Your task to perform on an android device: move a message to another label in the gmail app Image 0: 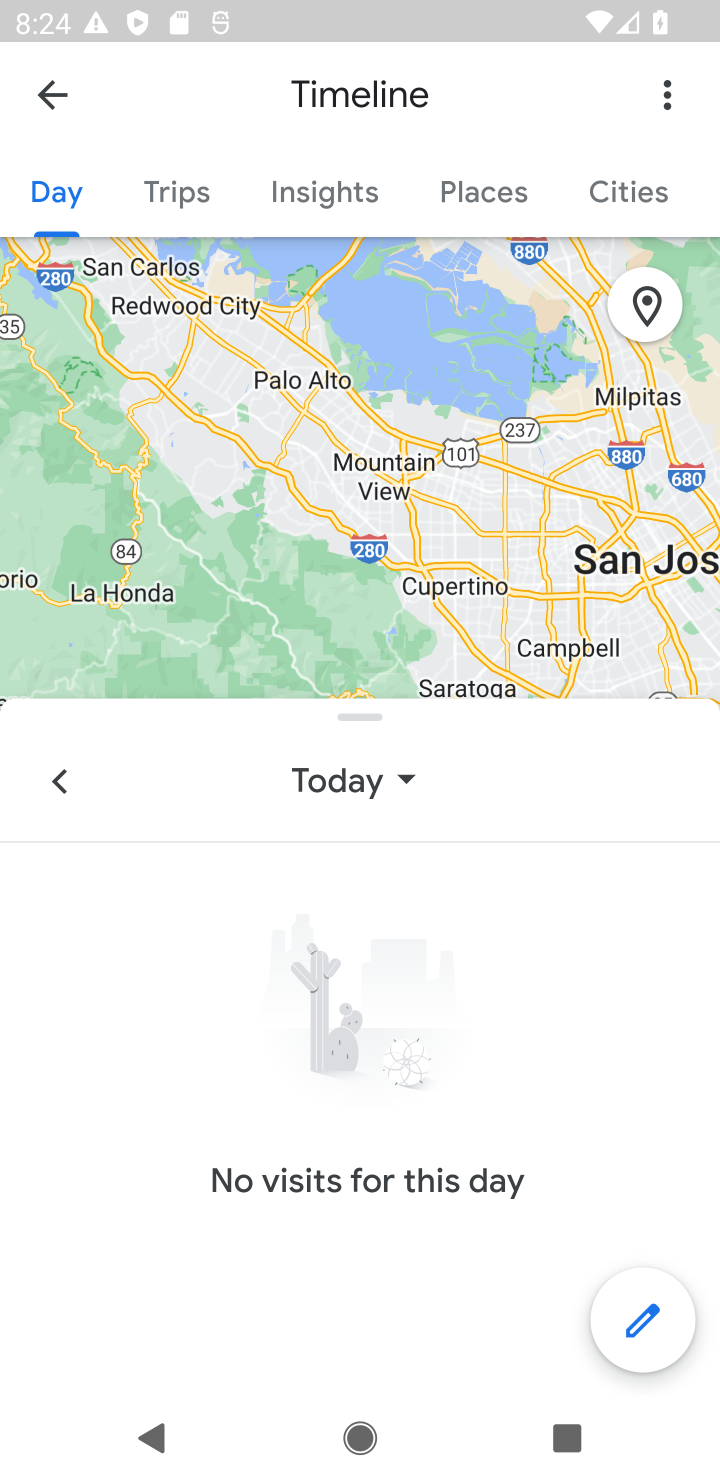
Step 0: press home button
Your task to perform on an android device: move a message to another label in the gmail app Image 1: 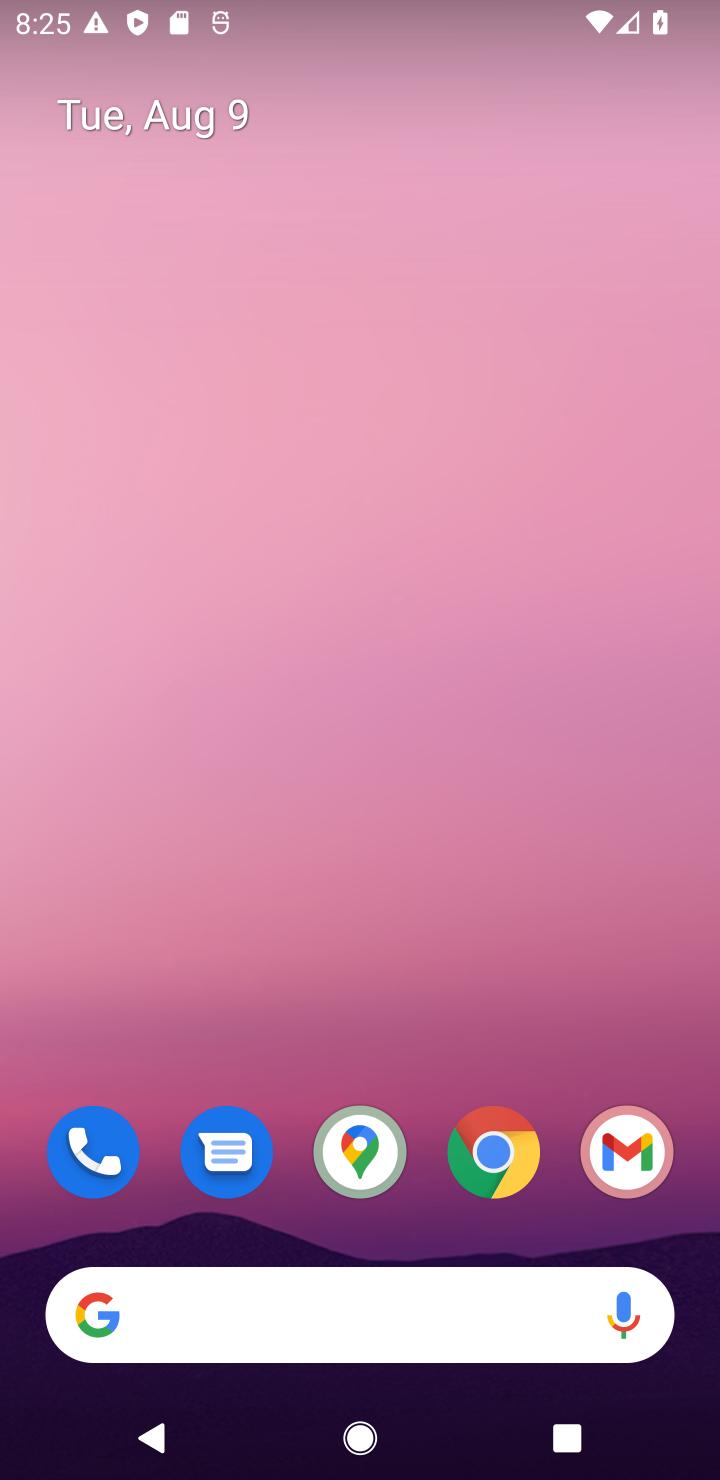
Step 1: click (669, 1191)
Your task to perform on an android device: move a message to another label in the gmail app Image 2: 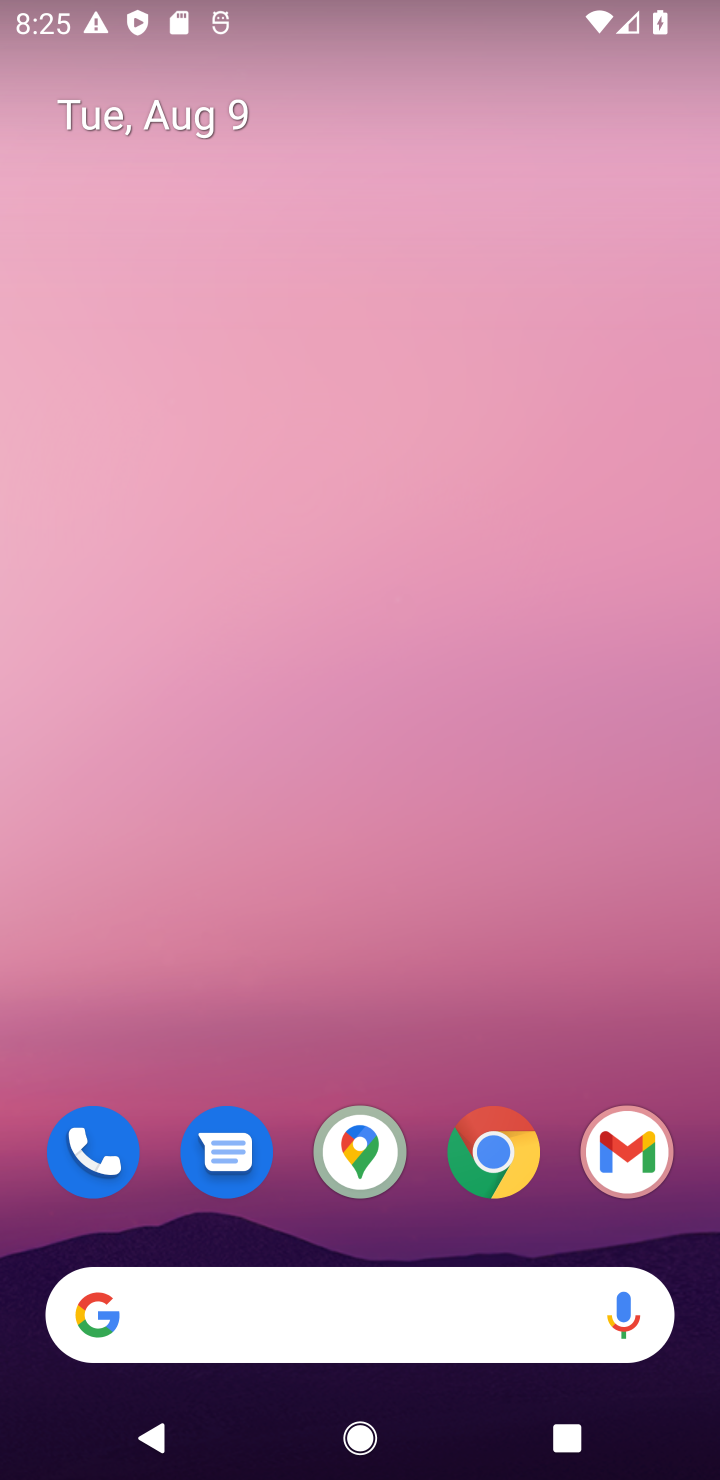
Step 2: click (669, 1191)
Your task to perform on an android device: move a message to another label in the gmail app Image 3: 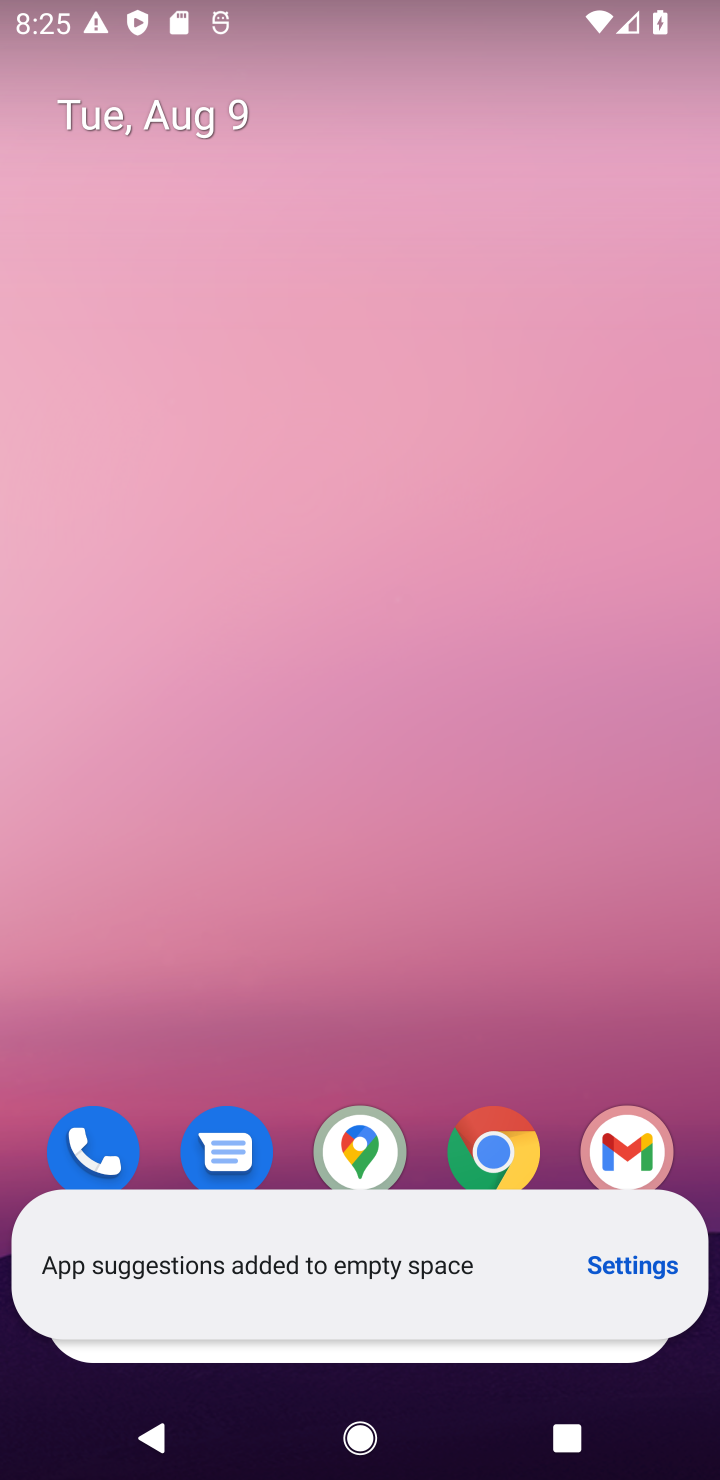
Step 3: click (669, 1134)
Your task to perform on an android device: move a message to another label in the gmail app Image 4: 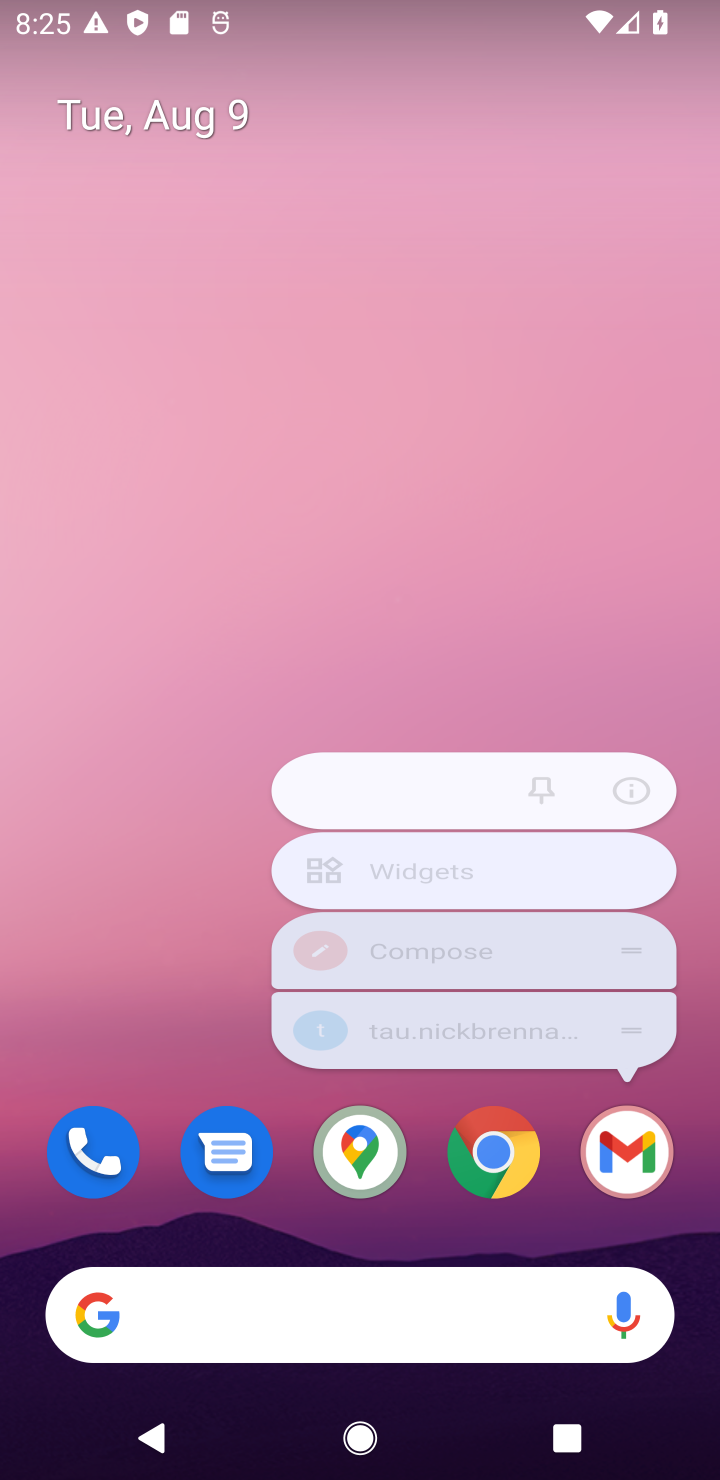
Step 4: click (669, 1134)
Your task to perform on an android device: move a message to another label in the gmail app Image 5: 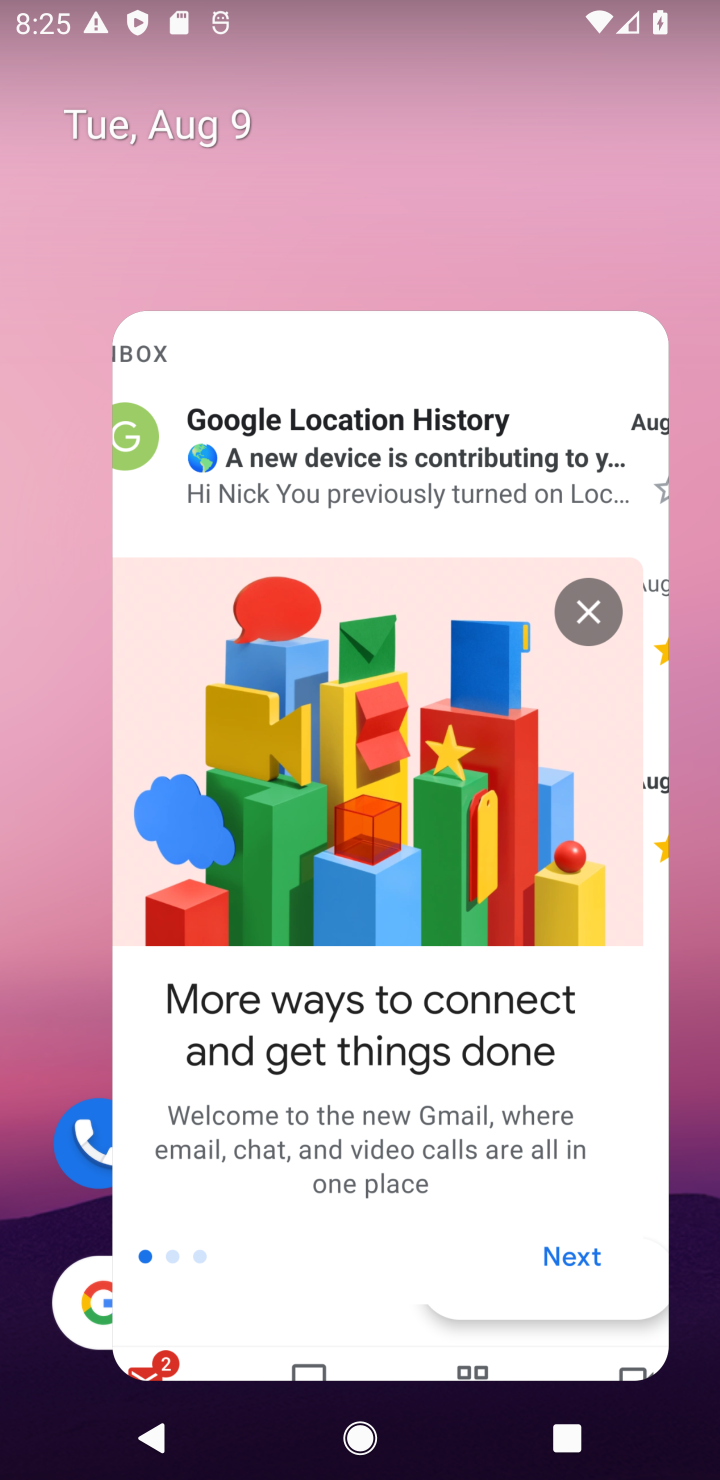
Step 5: click (669, 1134)
Your task to perform on an android device: move a message to another label in the gmail app Image 6: 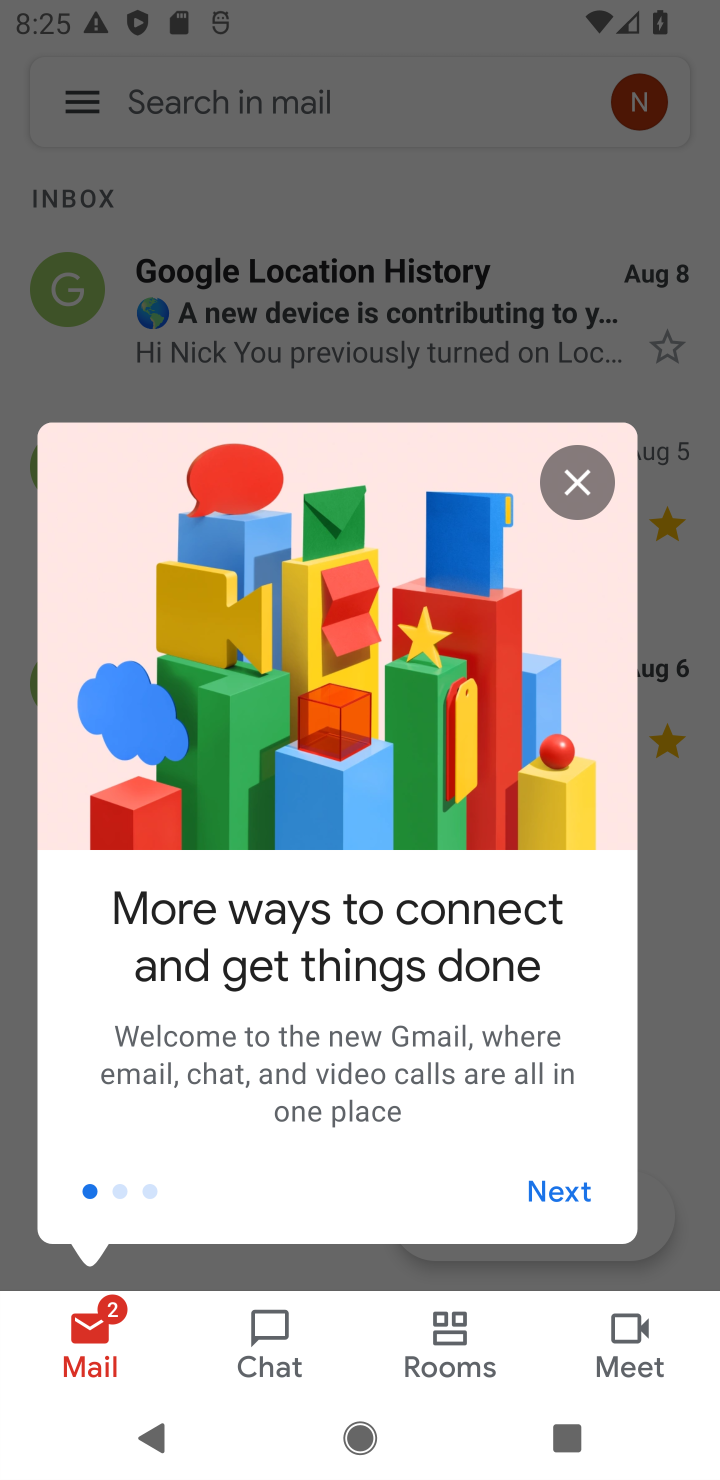
Step 6: click (669, 1134)
Your task to perform on an android device: move a message to another label in the gmail app Image 7: 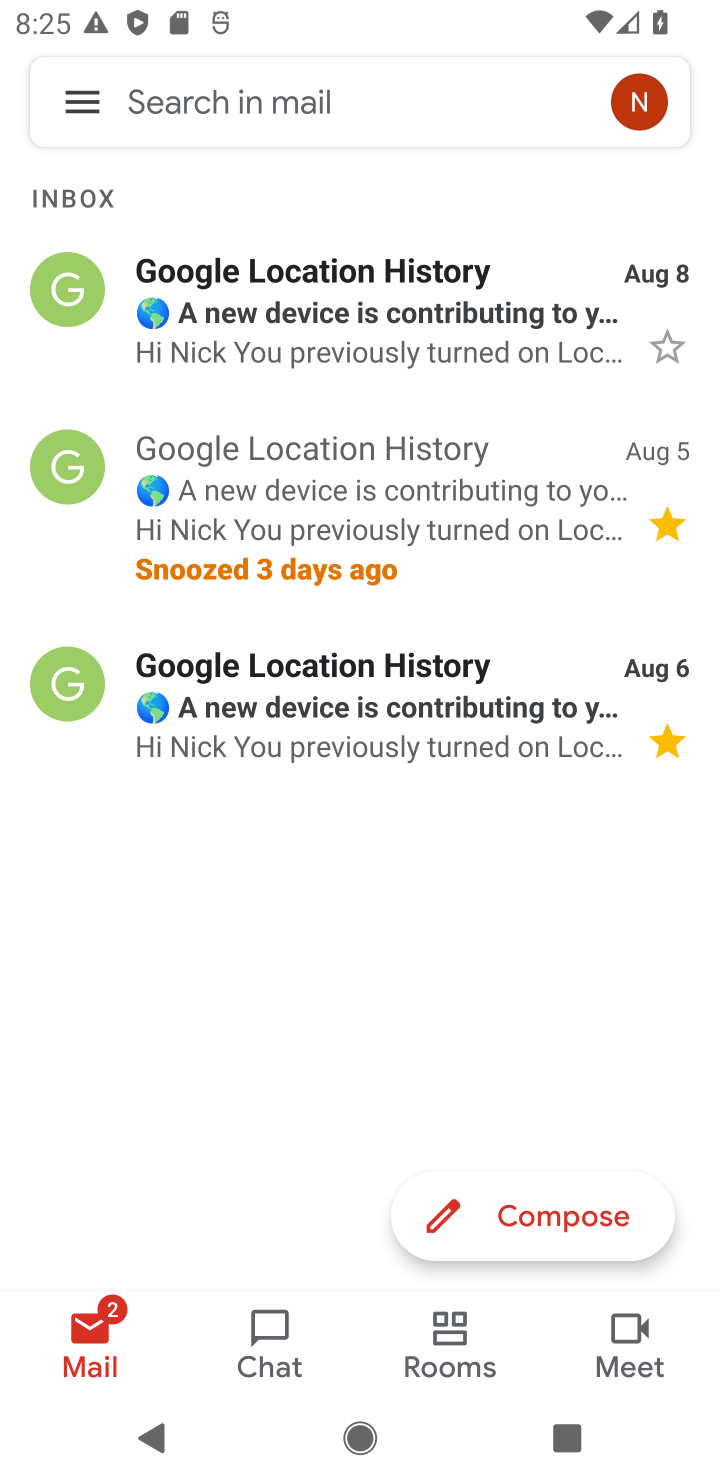
Step 7: click (90, 694)
Your task to perform on an android device: move a message to another label in the gmail app Image 8: 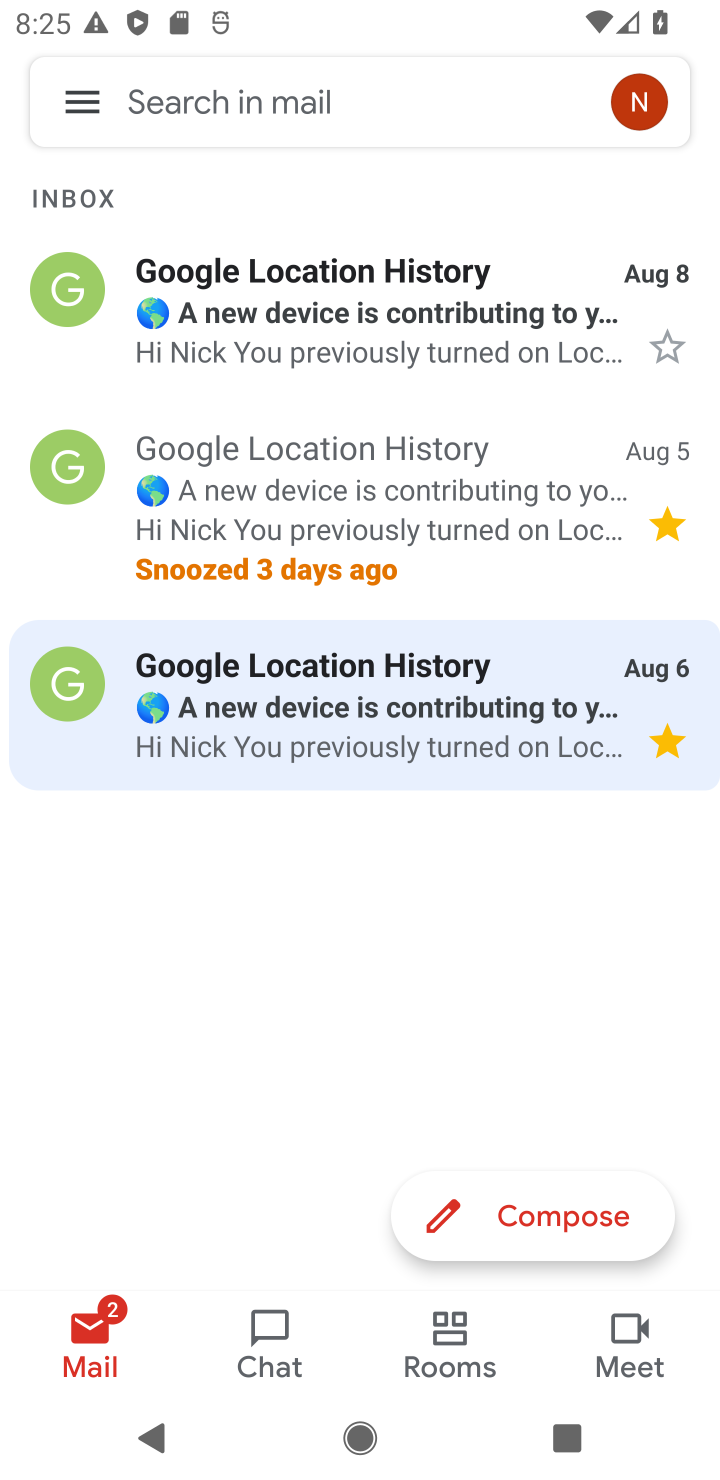
Step 8: click (90, 694)
Your task to perform on an android device: move a message to another label in the gmail app Image 9: 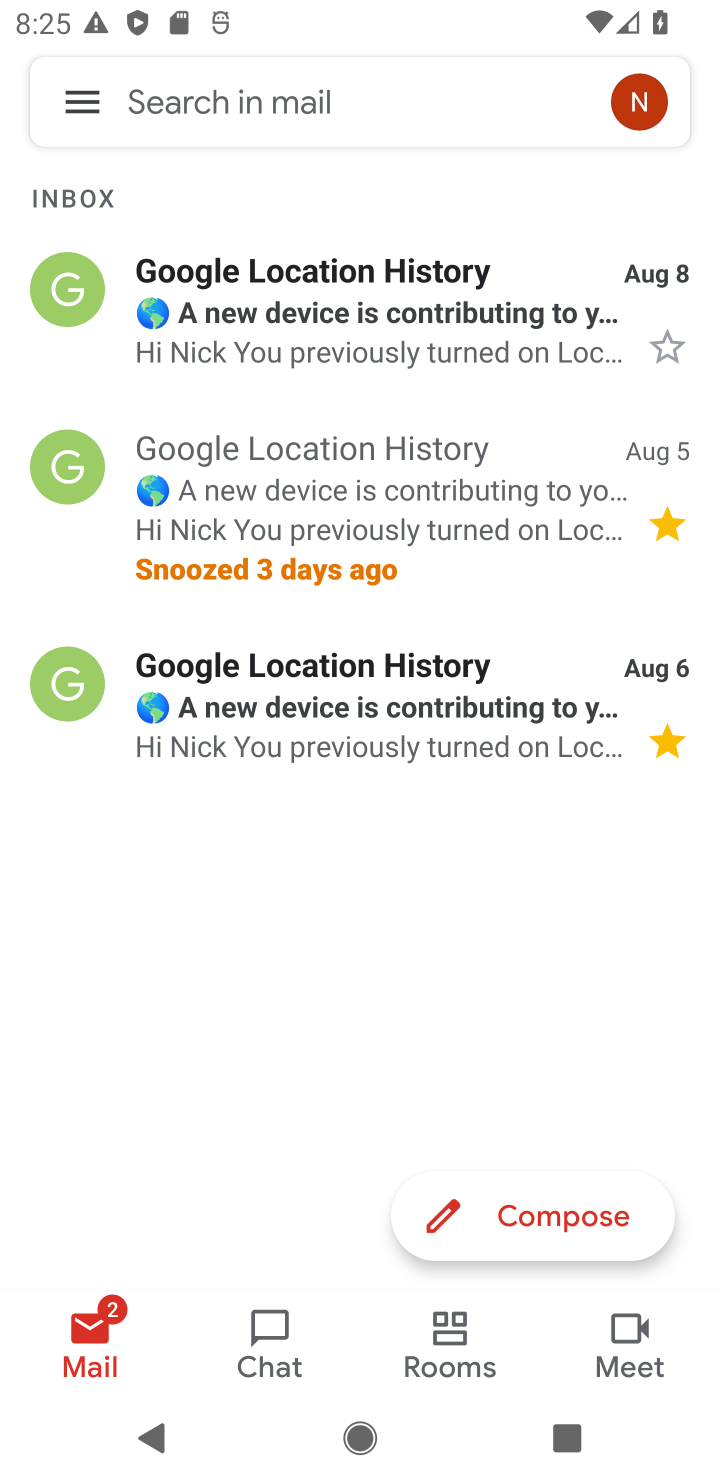
Step 9: click (58, 471)
Your task to perform on an android device: move a message to another label in the gmail app Image 10: 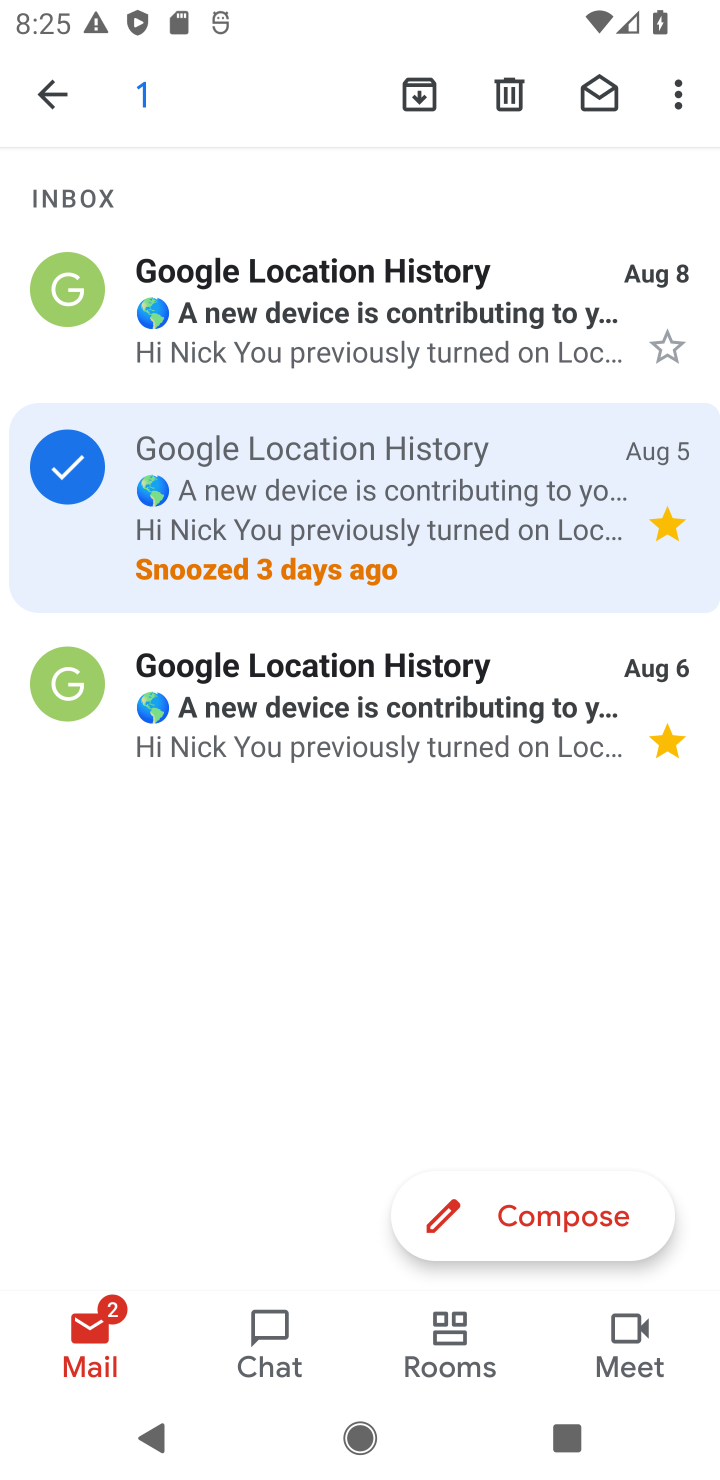
Step 10: click (698, 89)
Your task to perform on an android device: move a message to another label in the gmail app Image 11: 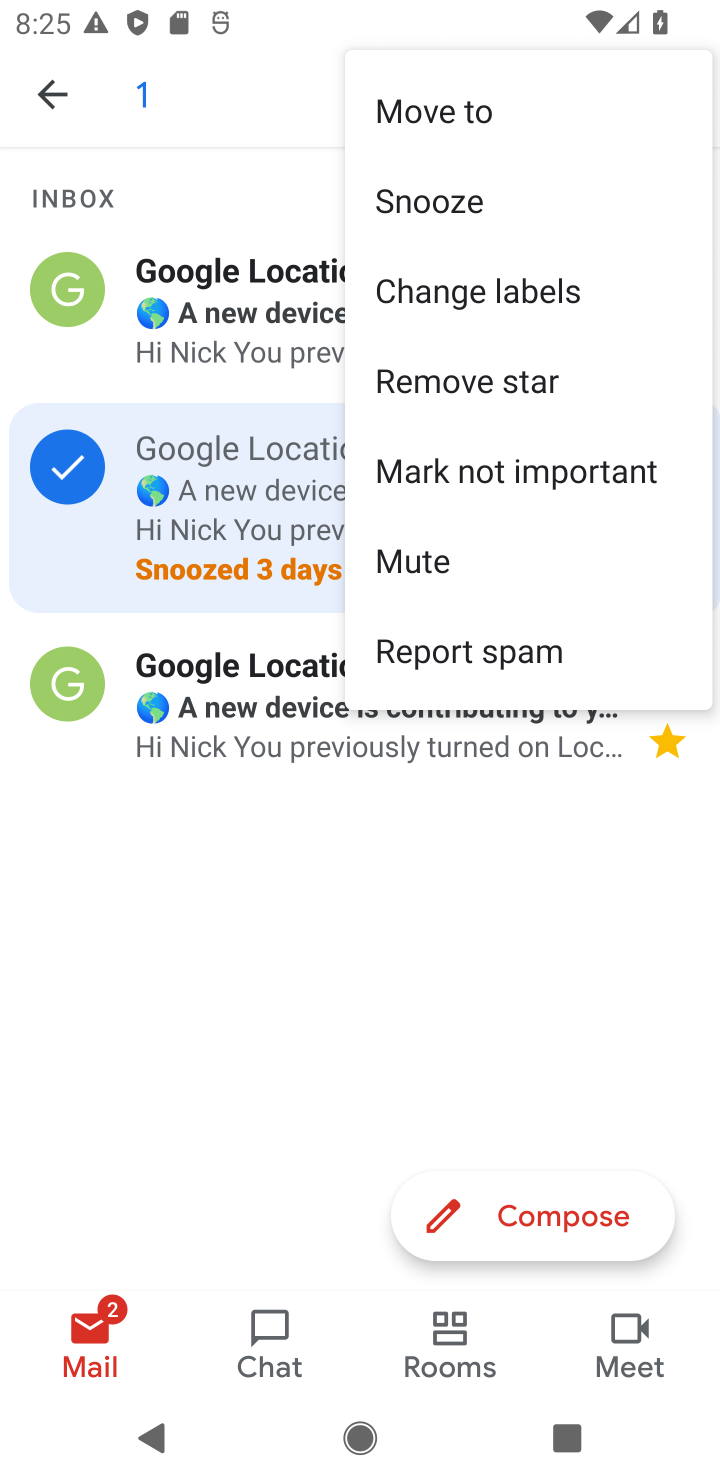
Step 11: click (698, 89)
Your task to perform on an android device: move a message to another label in the gmail app Image 12: 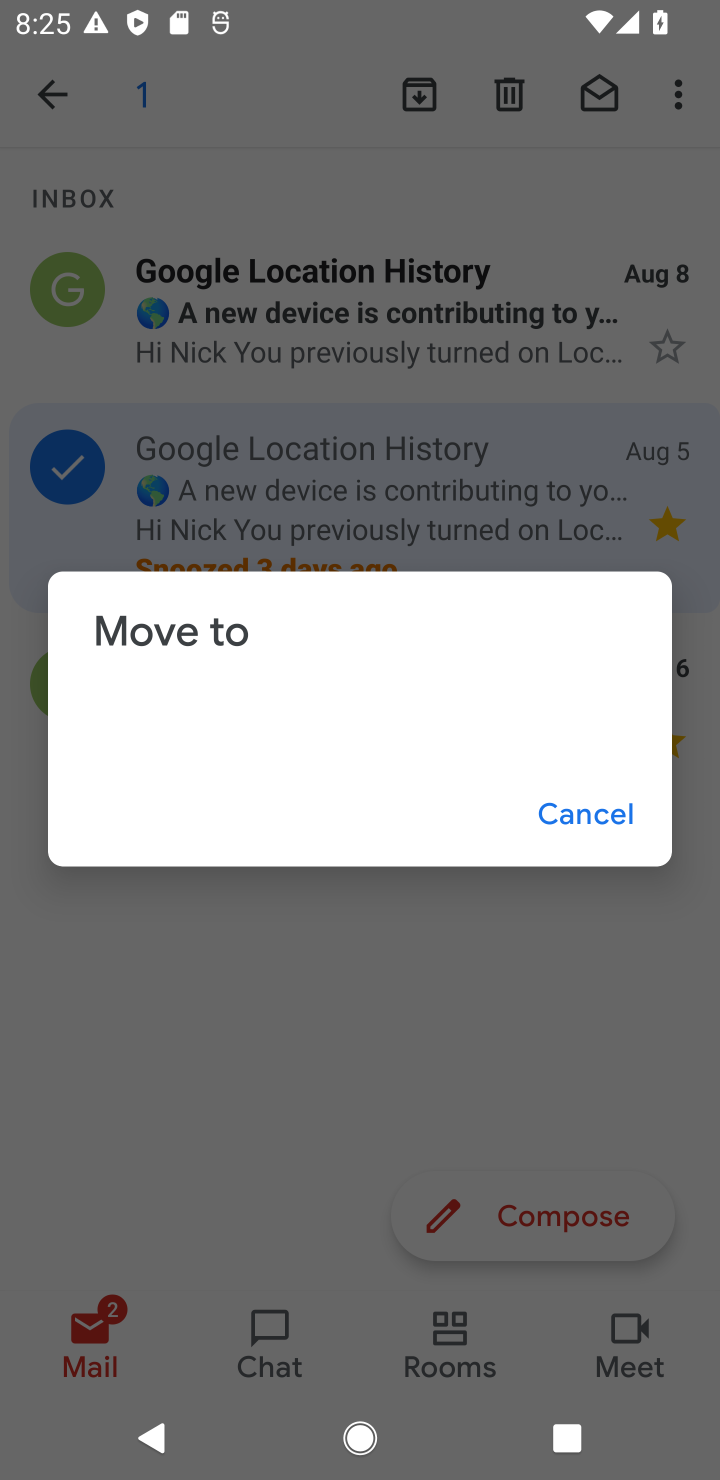
Step 12: click (514, 850)
Your task to perform on an android device: move a message to another label in the gmail app Image 13: 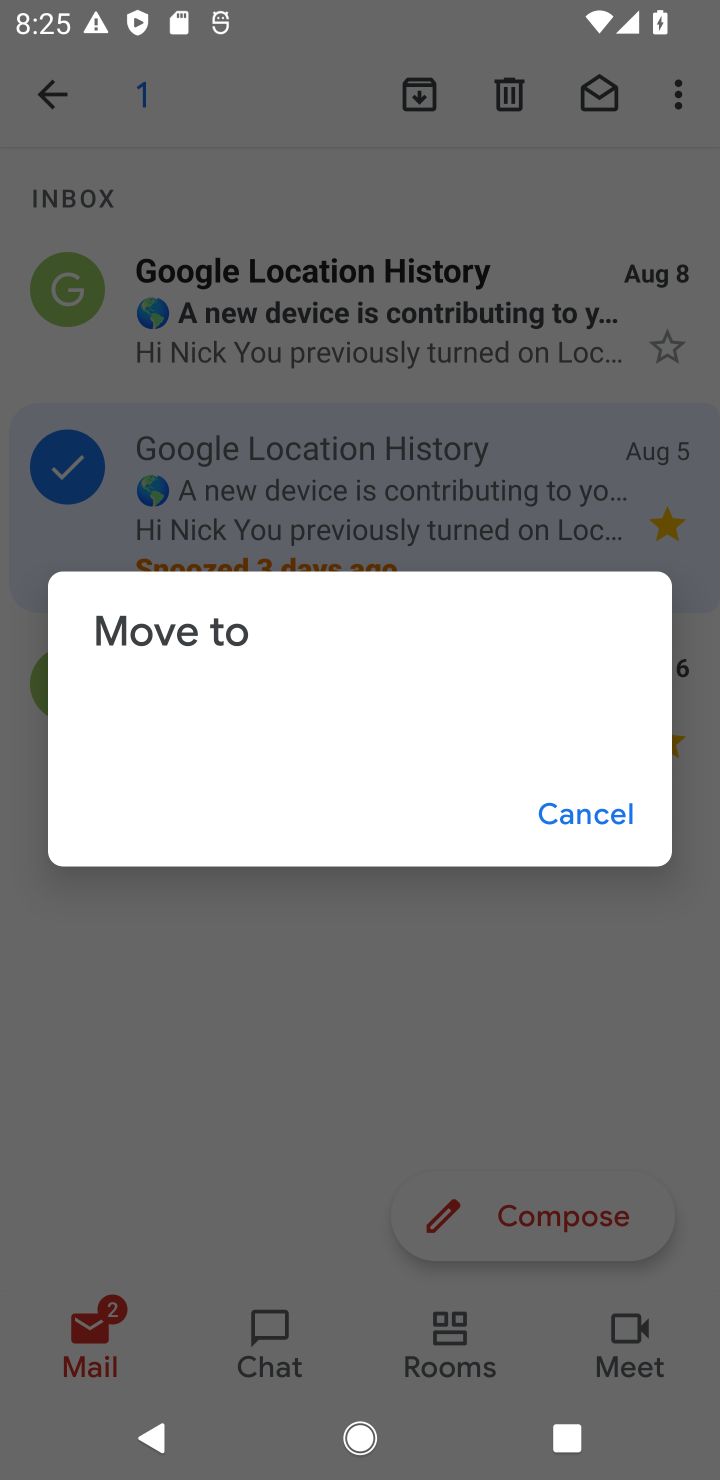
Step 13: click (514, 850)
Your task to perform on an android device: move a message to another label in the gmail app Image 14: 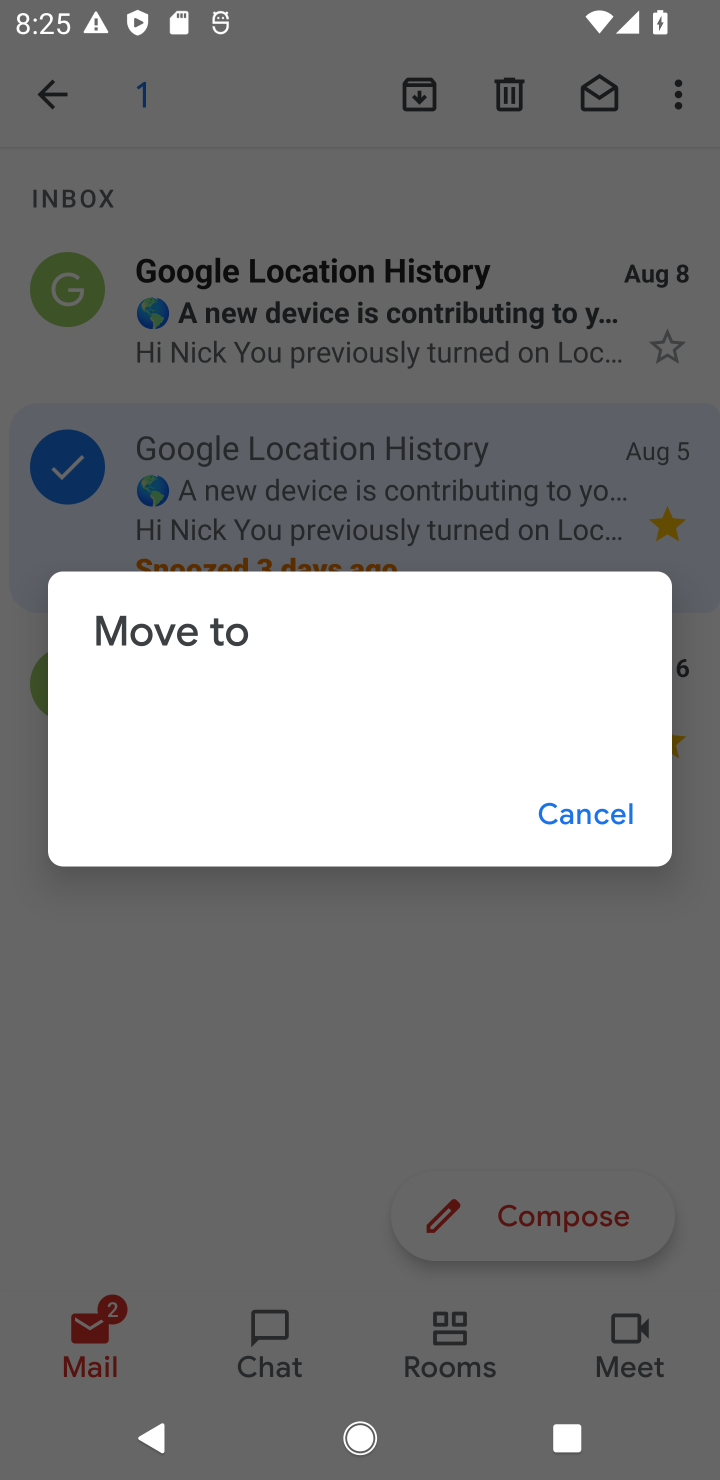
Step 14: click (514, 850)
Your task to perform on an android device: move a message to another label in the gmail app Image 15: 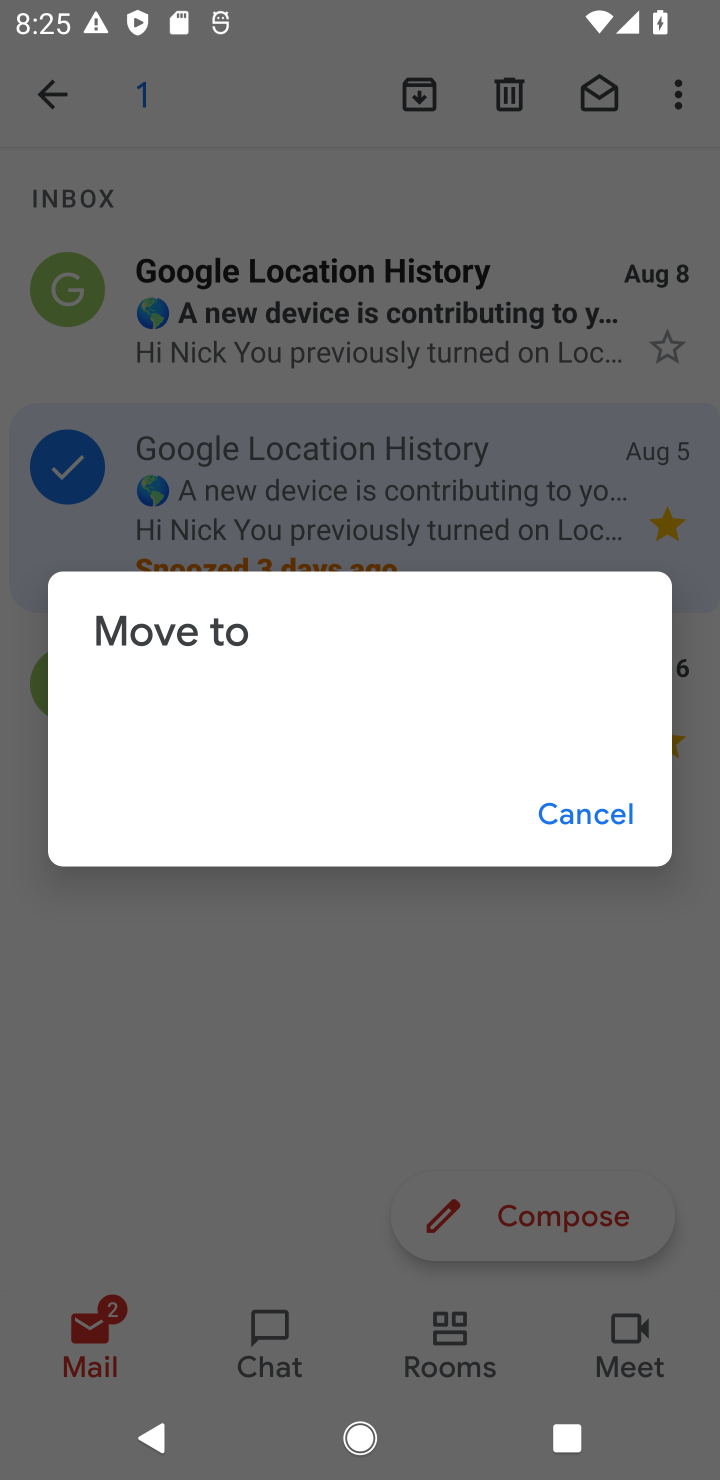
Step 15: click (514, 850)
Your task to perform on an android device: move a message to another label in the gmail app Image 16: 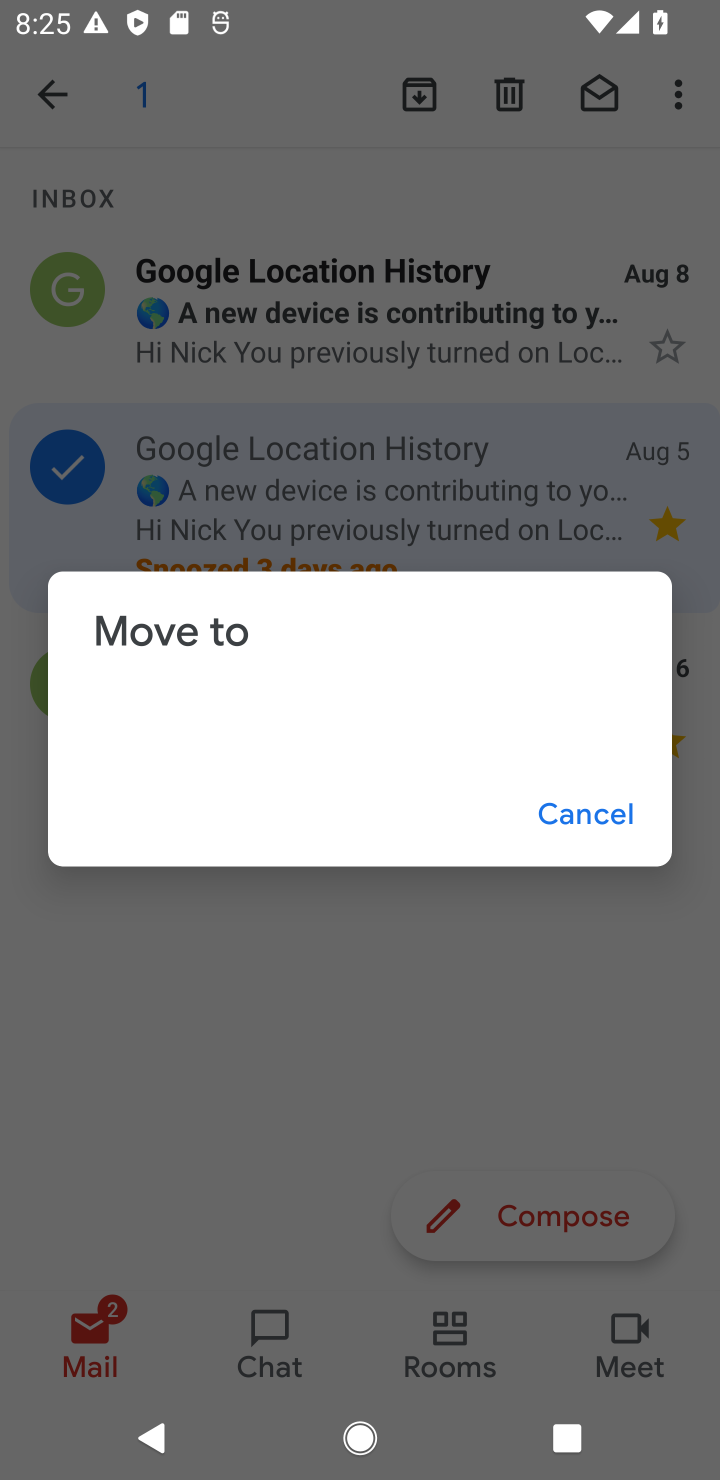
Step 16: click (514, 850)
Your task to perform on an android device: move a message to another label in the gmail app Image 17: 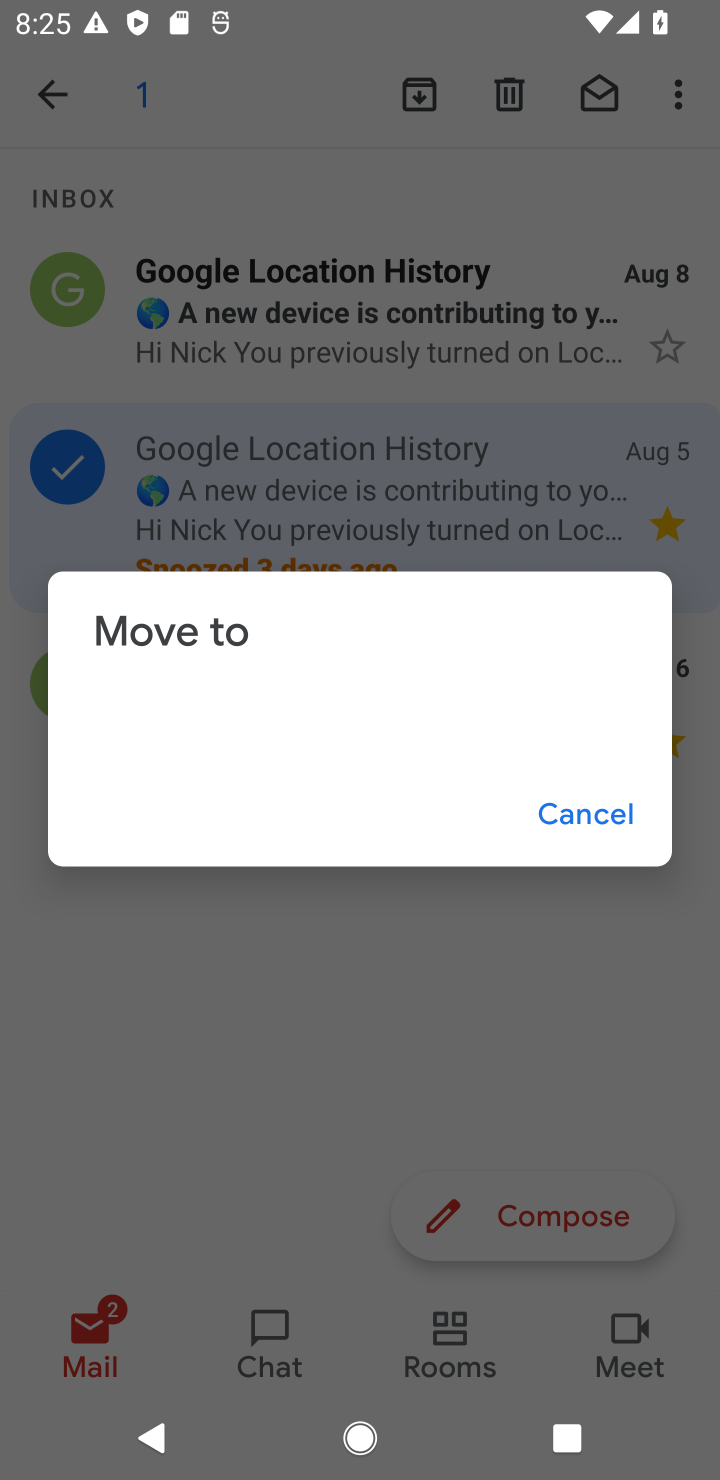
Step 17: task complete